Your task to perform on an android device: Go to Reddit.com Image 0: 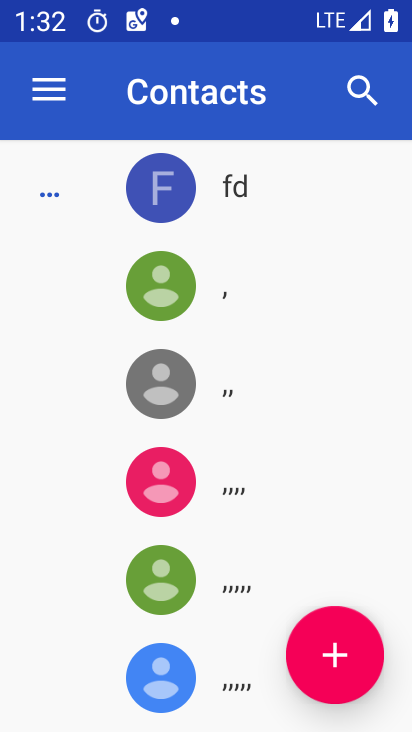
Step 0: press home button
Your task to perform on an android device: Go to Reddit.com Image 1: 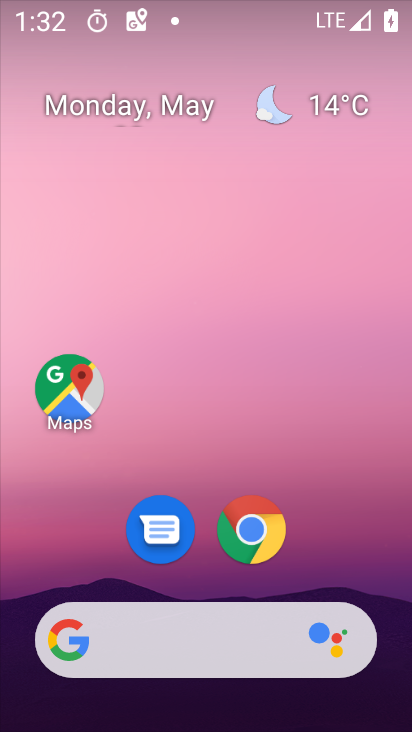
Step 1: drag from (375, 561) to (353, 201)
Your task to perform on an android device: Go to Reddit.com Image 2: 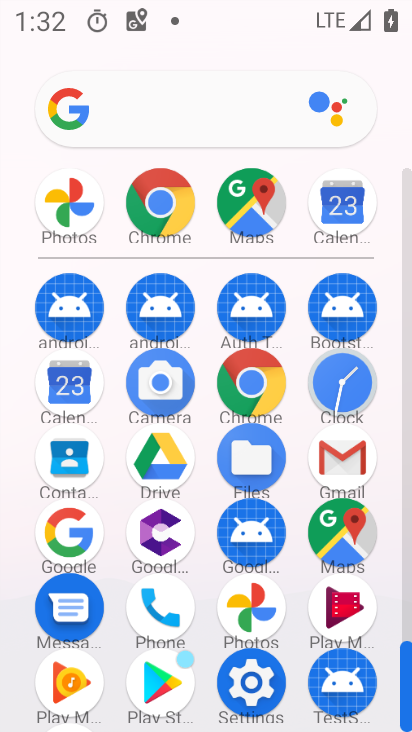
Step 2: click (268, 399)
Your task to perform on an android device: Go to Reddit.com Image 3: 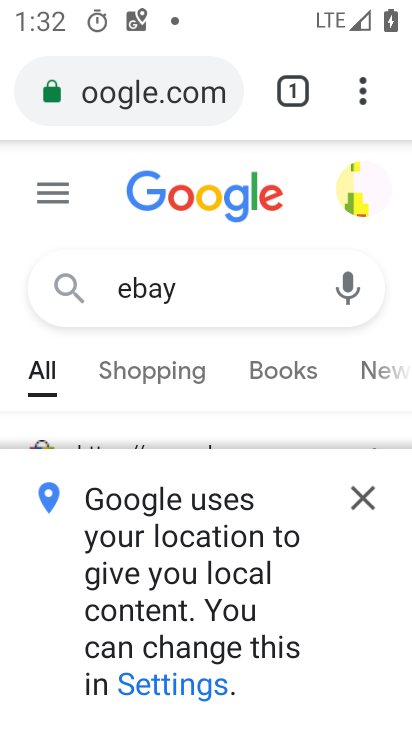
Step 3: click (179, 102)
Your task to perform on an android device: Go to Reddit.com Image 4: 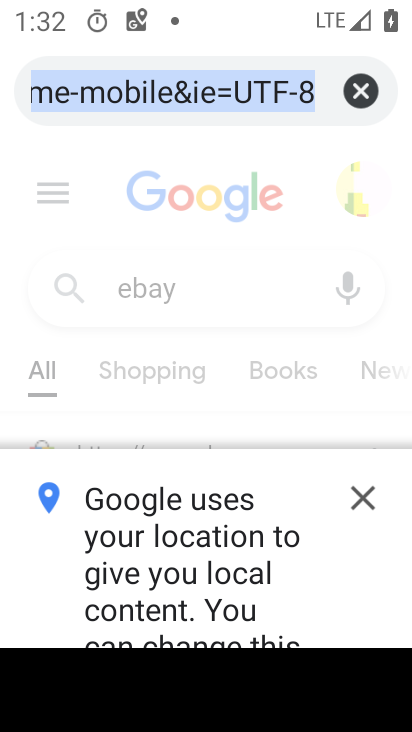
Step 4: click (354, 89)
Your task to perform on an android device: Go to Reddit.com Image 5: 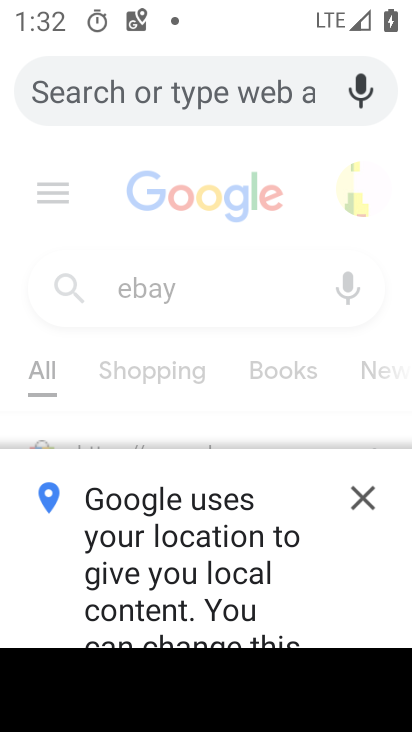
Step 5: type "reddit.com"
Your task to perform on an android device: Go to Reddit.com Image 6: 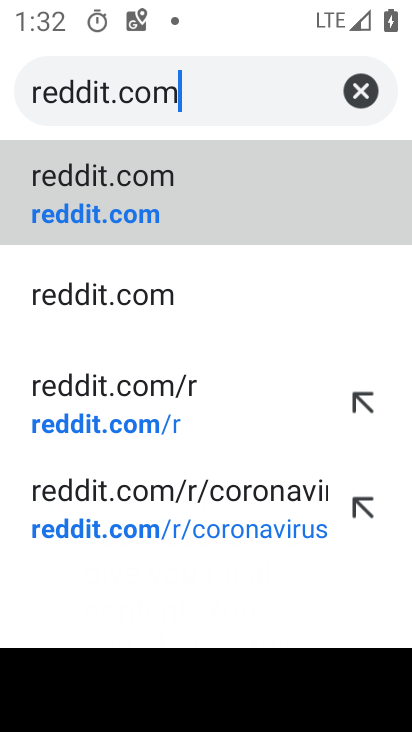
Step 6: click (223, 213)
Your task to perform on an android device: Go to Reddit.com Image 7: 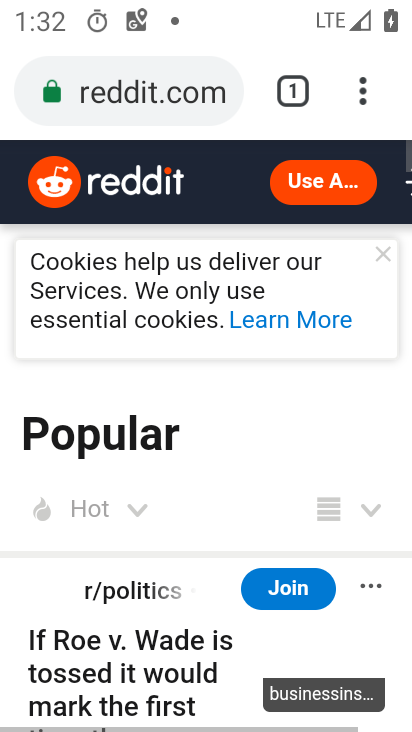
Step 7: task complete